Your task to perform on an android device: open app "The Home Depot" (install if not already installed) and go to login screen Image 0: 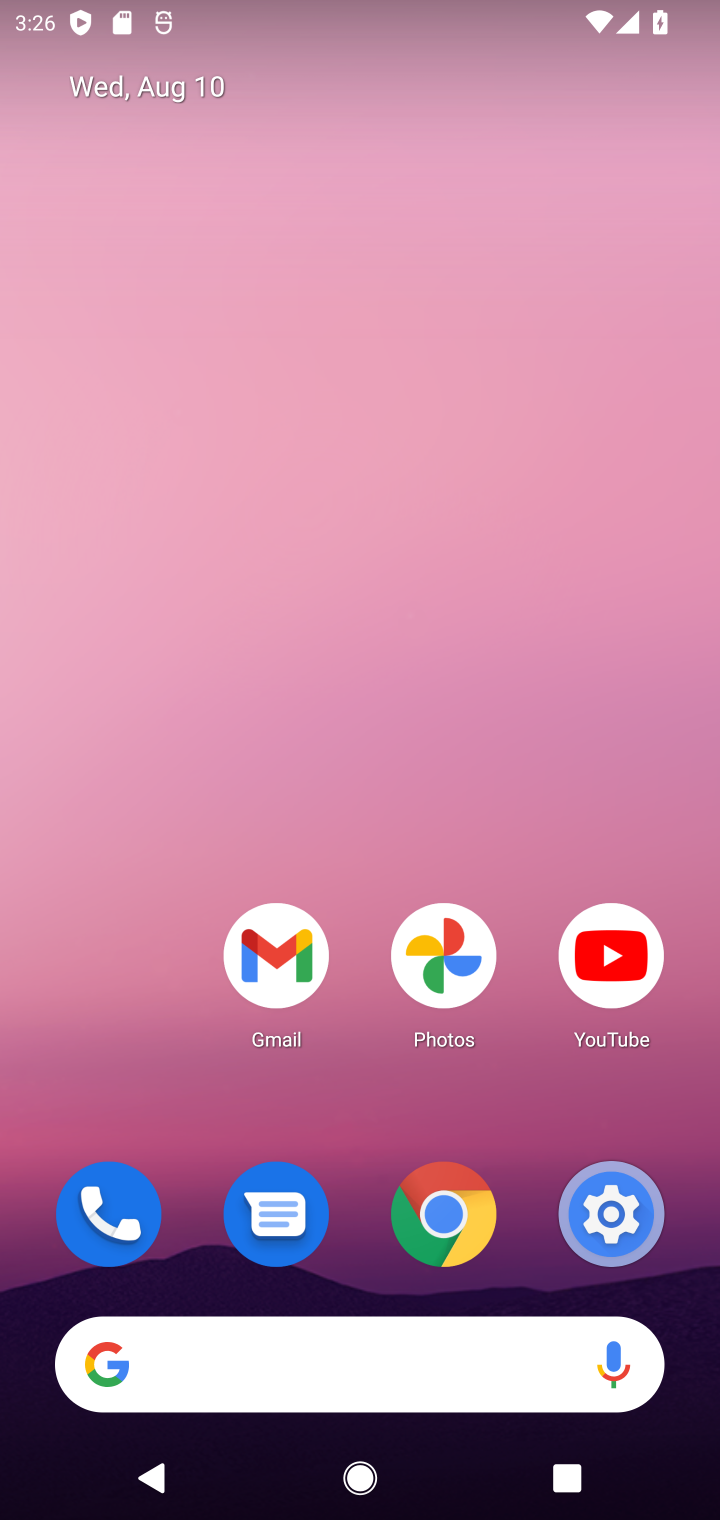
Step 0: drag from (452, 970) to (345, 221)
Your task to perform on an android device: open app "The Home Depot" (install if not already installed) and go to login screen Image 1: 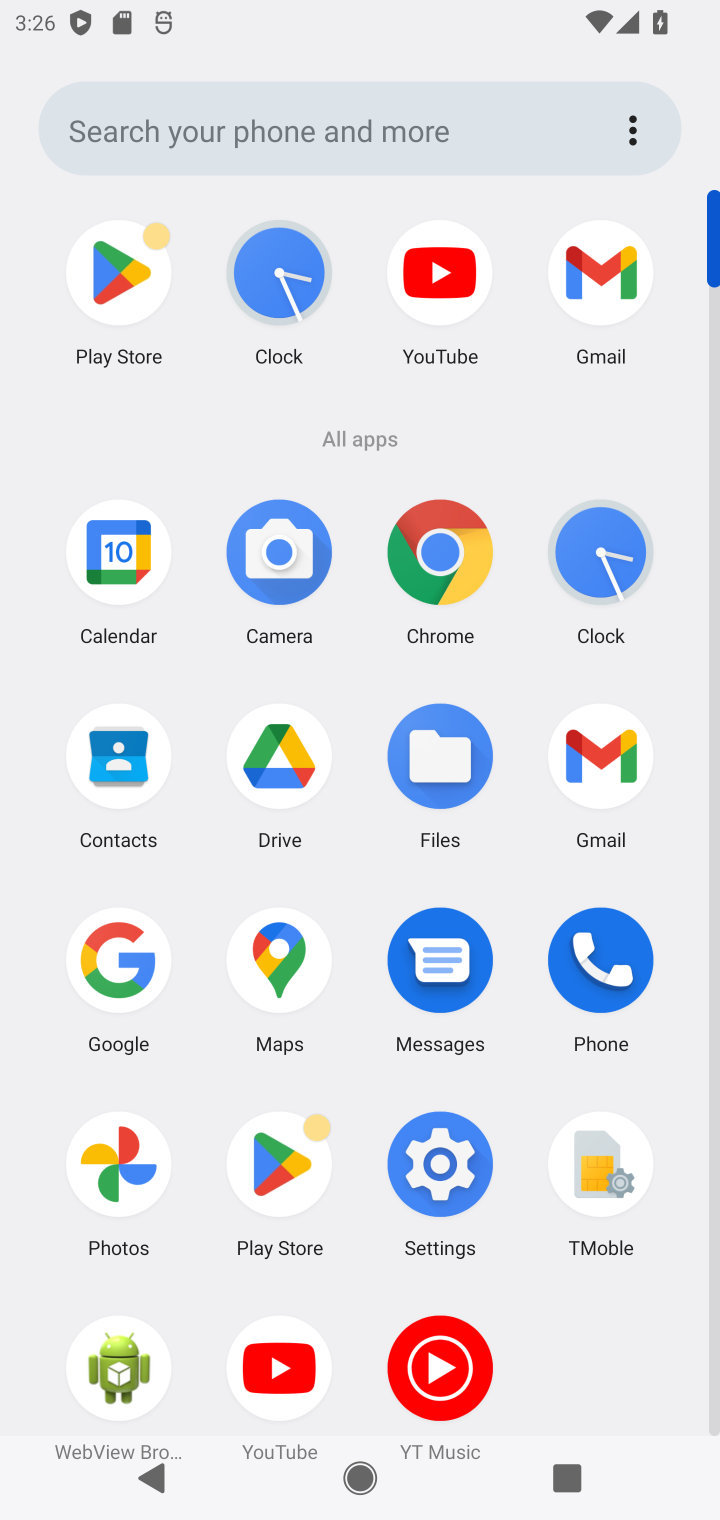
Step 1: click (273, 1213)
Your task to perform on an android device: open app "The Home Depot" (install if not already installed) and go to login screen Image 2: 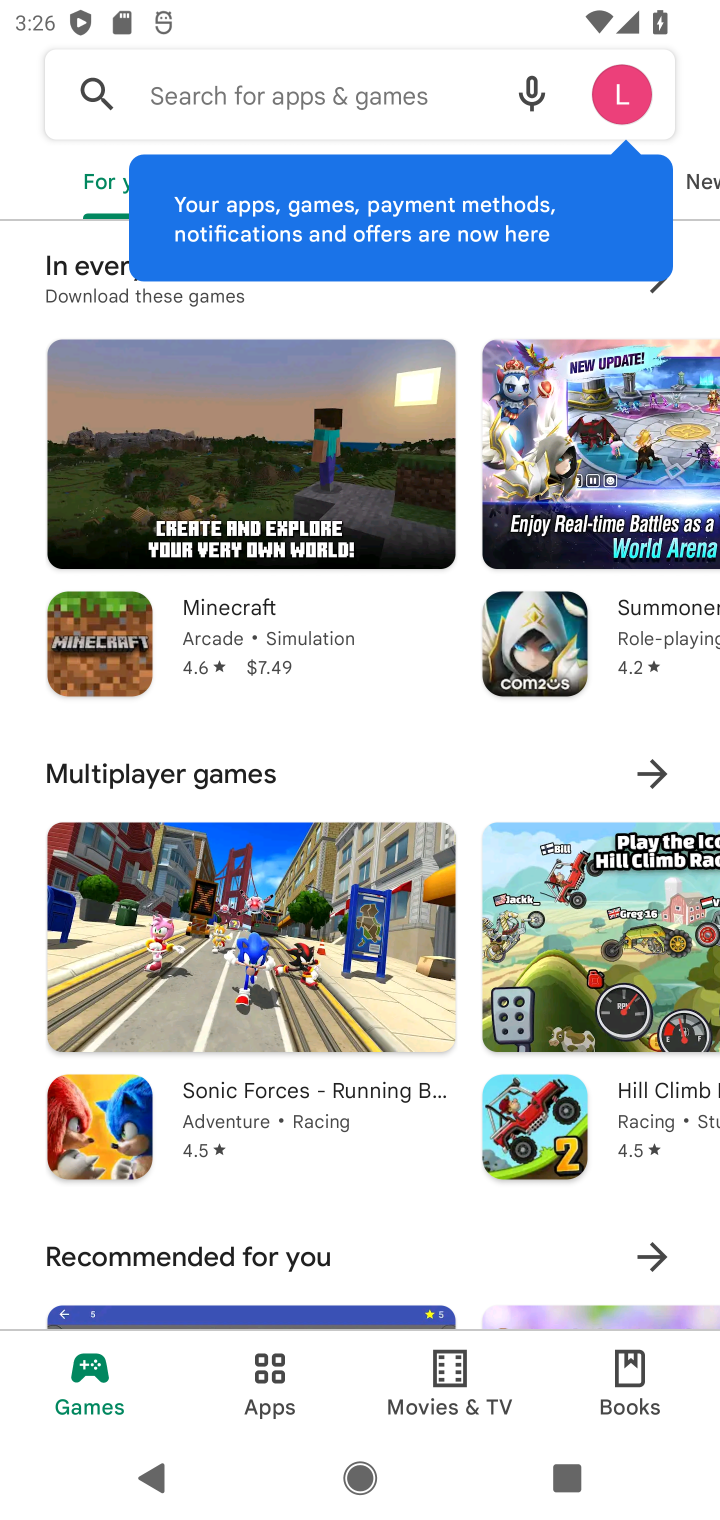
Step 2: click (167, 80)
Your task to perform on an android device: open app "The Home Depot" (install if not already installed) and go to login screen Image 3: 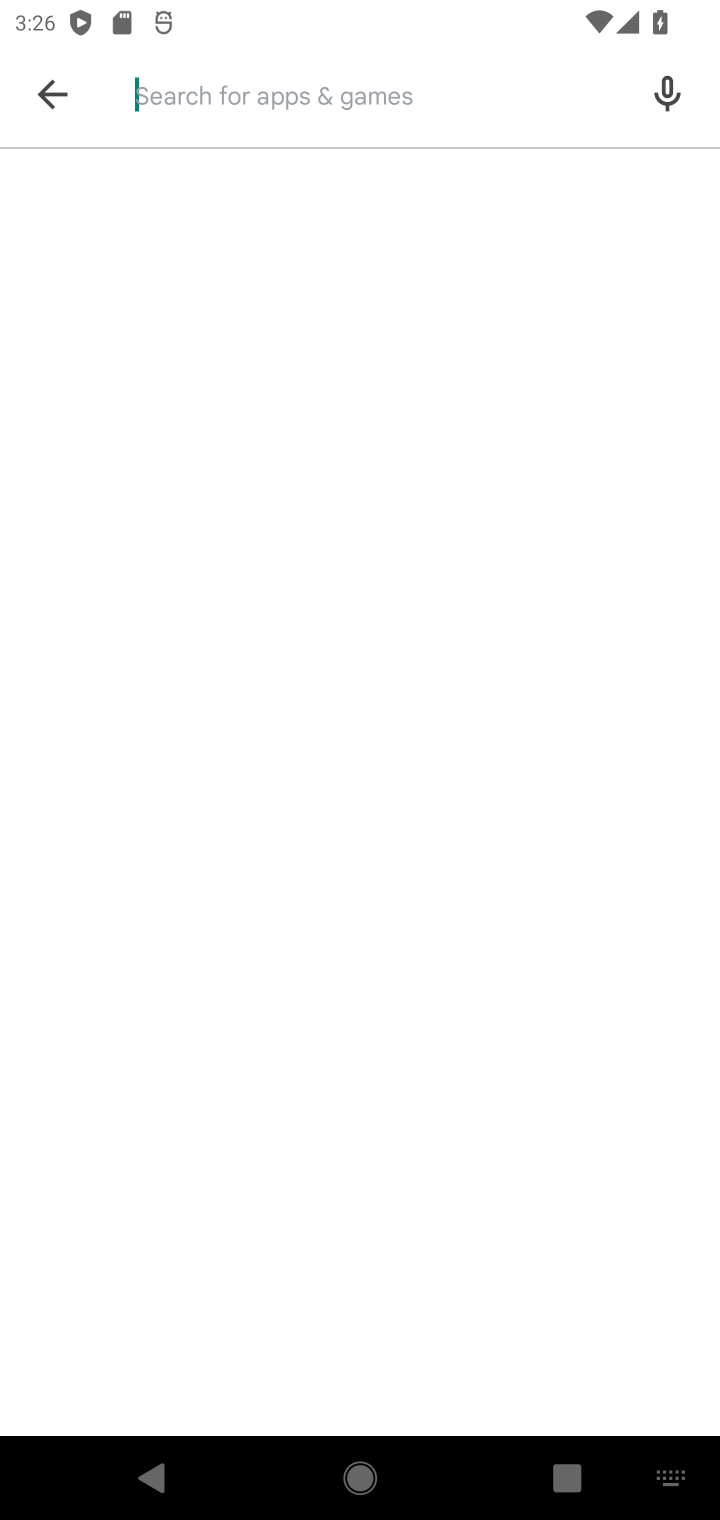
Step 3: type "the home depot"
Your task to perform on an android device: open app "The Home Depot" (install if not already installed) and go to login screen Image 4: 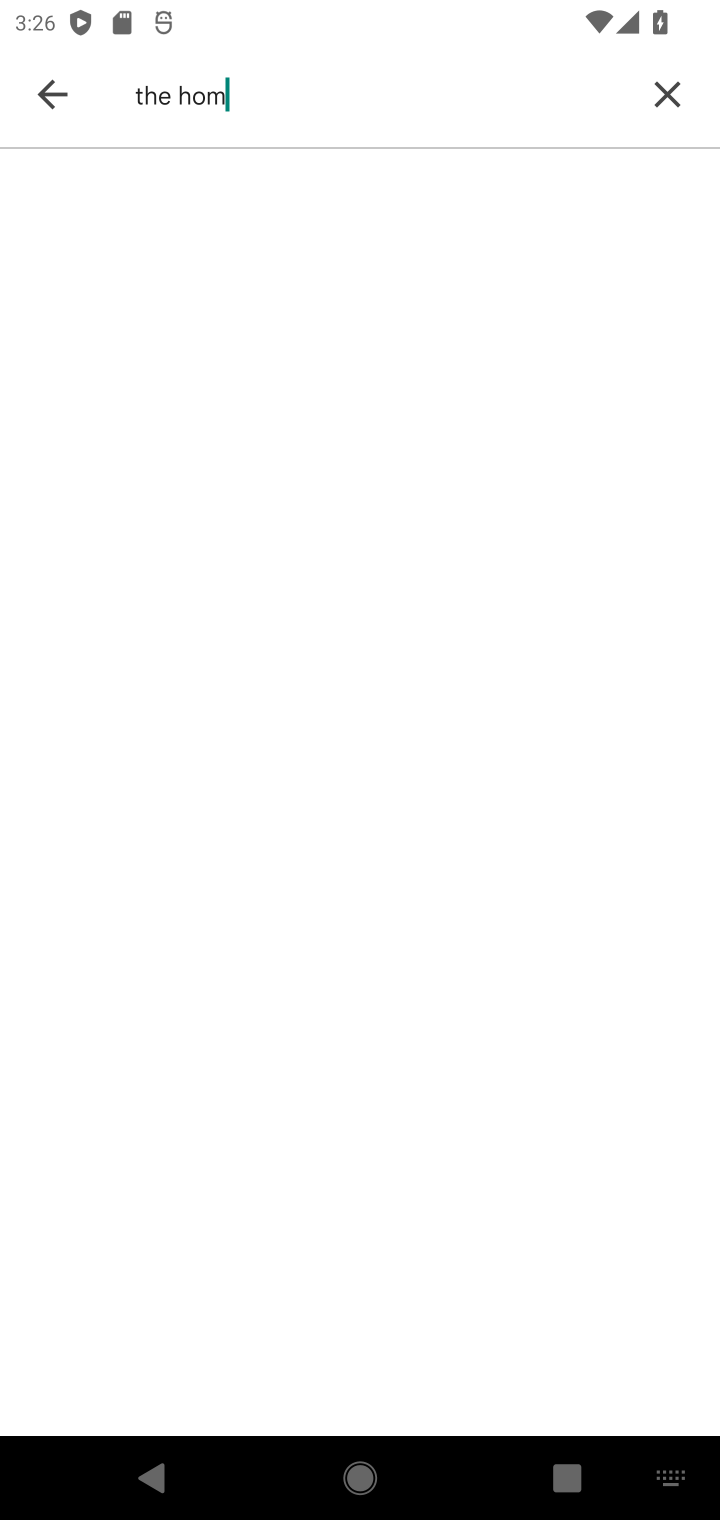
Step 4: type ""
Your task to perform on an android device: open app "The Home Depot" (install if not already installed) and go to login screen Image 5: 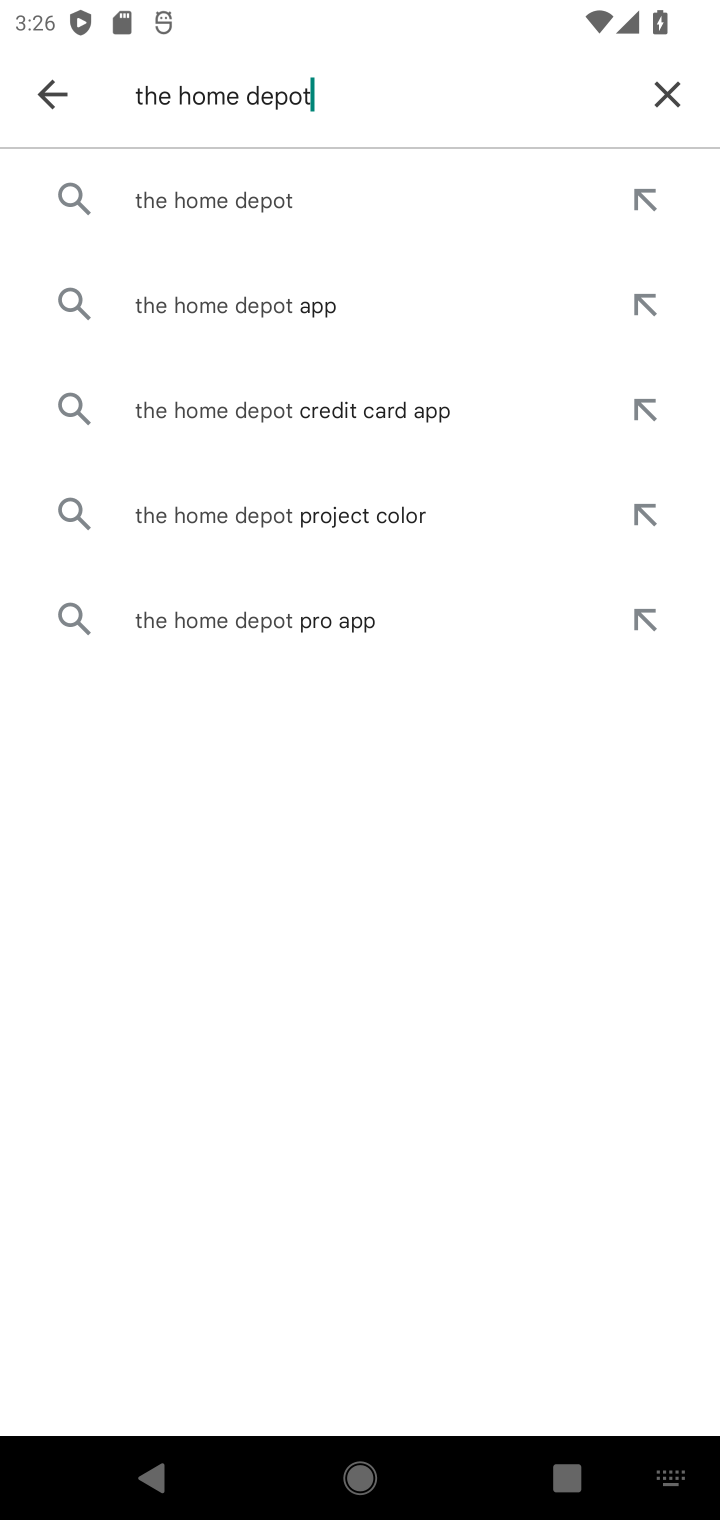
Step 5: click (244, 191)
Your task to perform on an android device: open app "The Home Depot" (install if not already installed) and go to login screen Image 6: 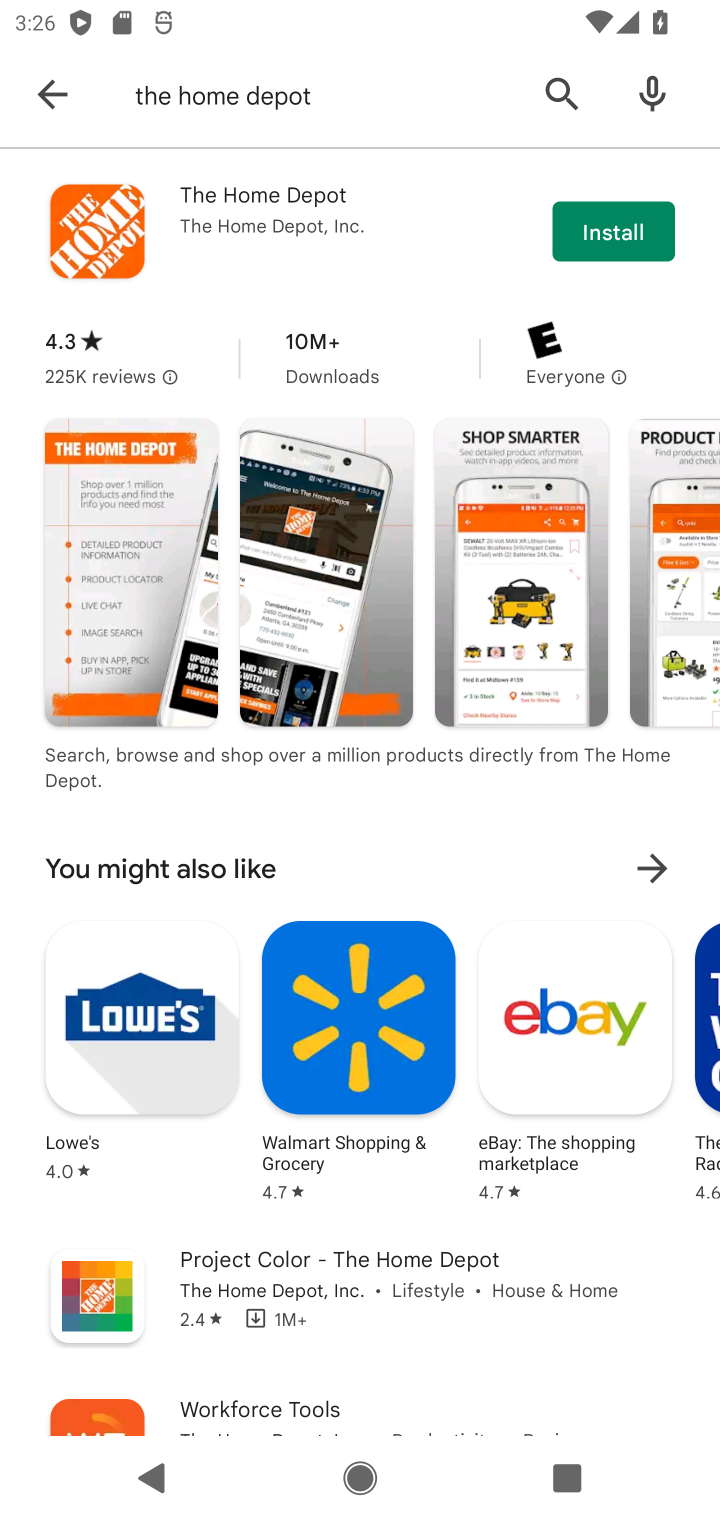
Step 6: click (623, 228)
Your task to perform on an android device: open app "The Home Depot" (install if not already installed) and go to login screen Image 7: 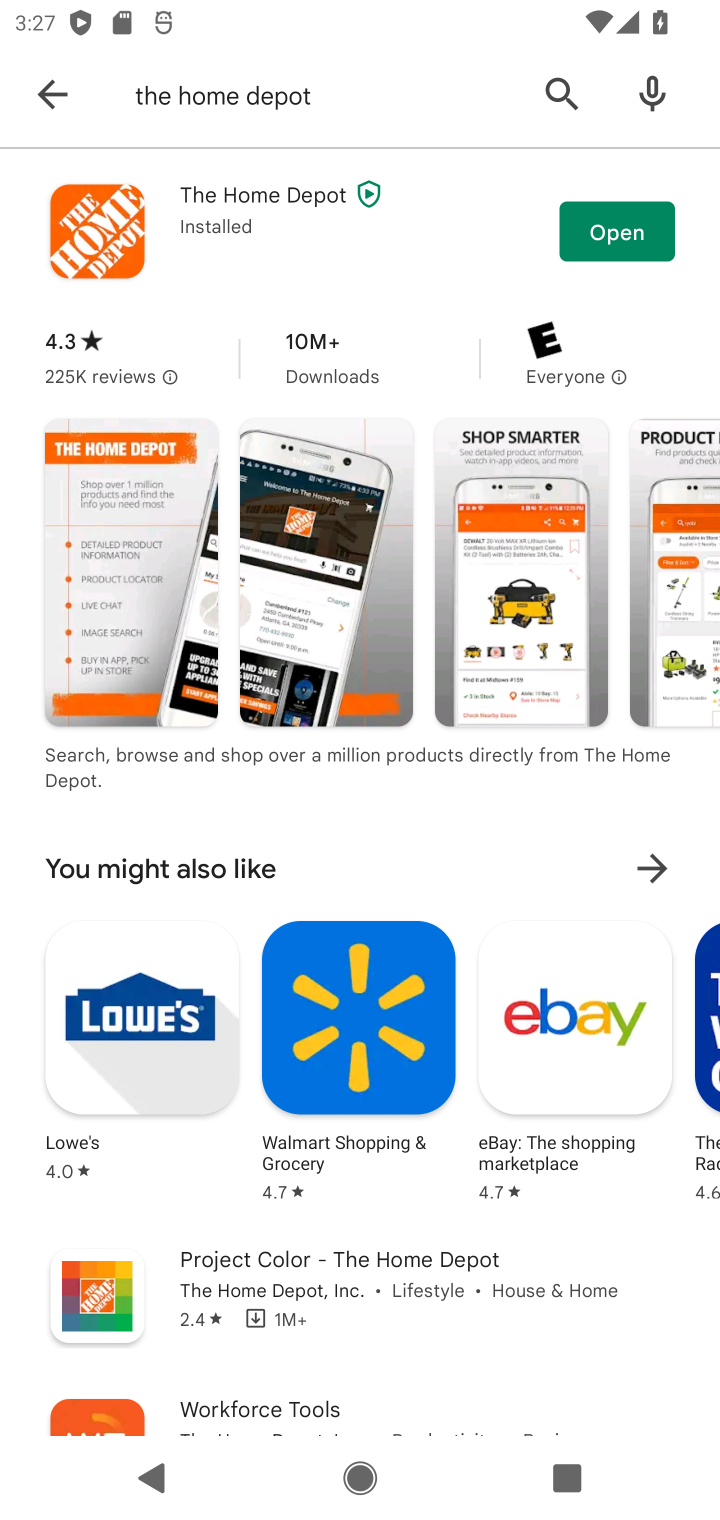
Step 7: click (615, 232)
Your task to perform on an android device: open app "The Home Depot" (install if not already installed) and go to login screen Image 8: 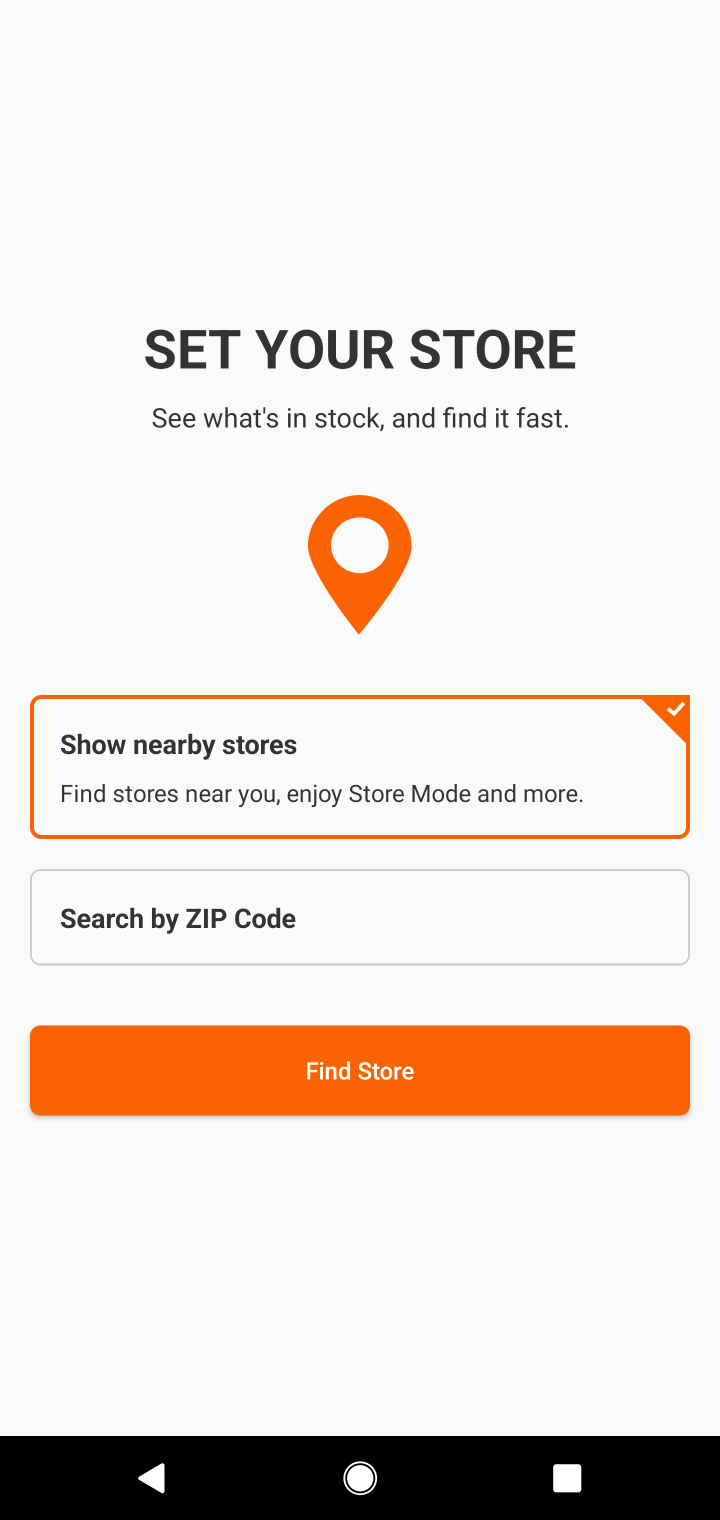
Step 8: click (499, 1072)
Your task to perform on an android device: open app "The Home Depot" (install if not already installed) and go to login screen Image 9: 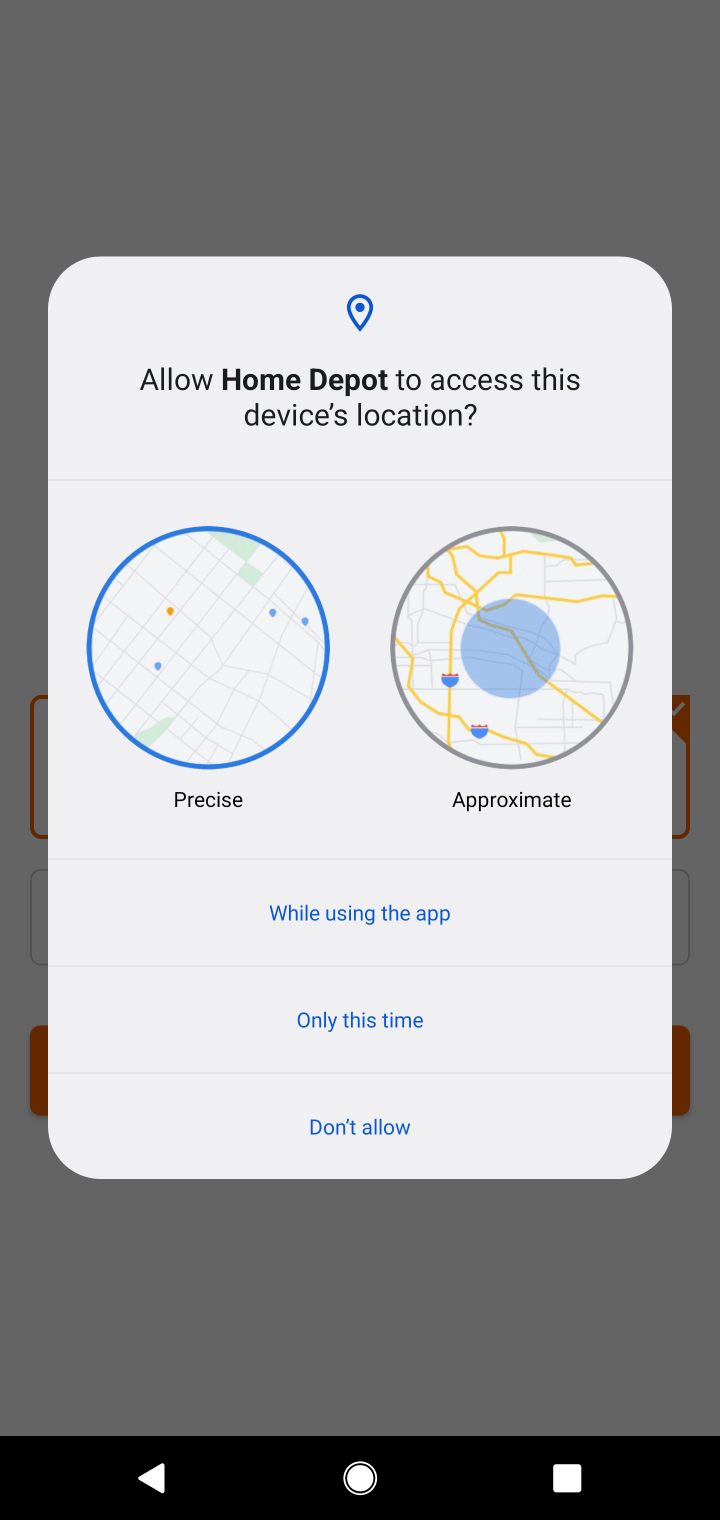
Step 9: click (468, 905)
Your task to perform on an android device: open app "The Home Depot" (install if not already installed) and go to login screen Image 10: 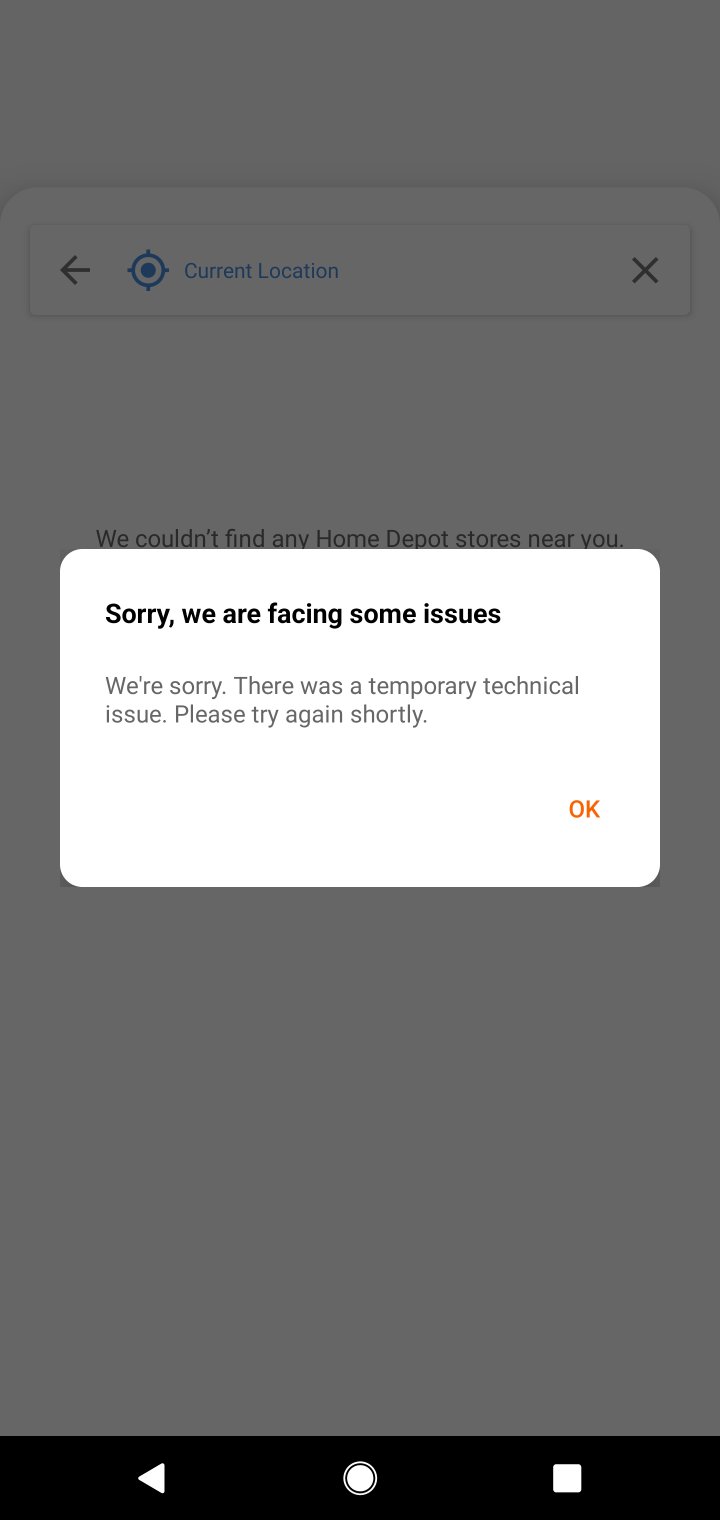
Step 10: click (603, 801)
Your task to perform on an android device: open app "The Home Depot" (install if not already installed) and go to login screen Image 11: 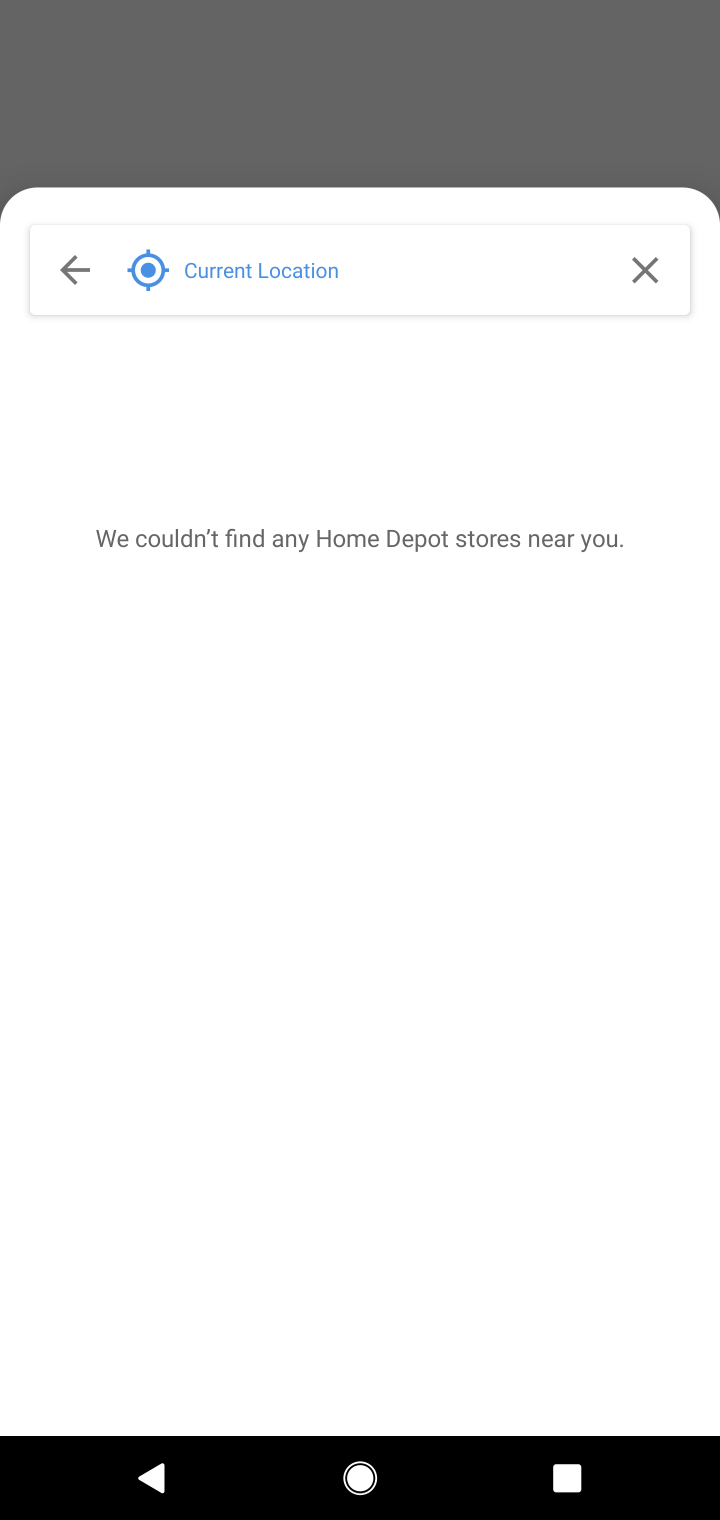
Step 11: task complete